Your task to perform on an android device: Search for seafood restaurants on Google Maps Image 0: 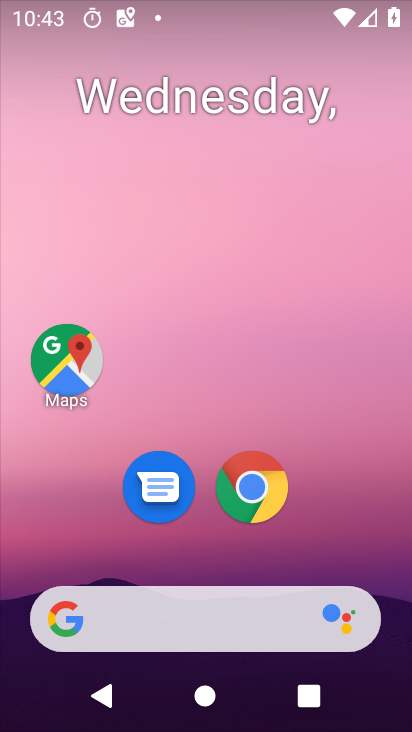
Step 0: drag from (230, 555) to (328, 109)
Your task to perform on an android device: Search for seafood restaurants on Google Maps Image 1: 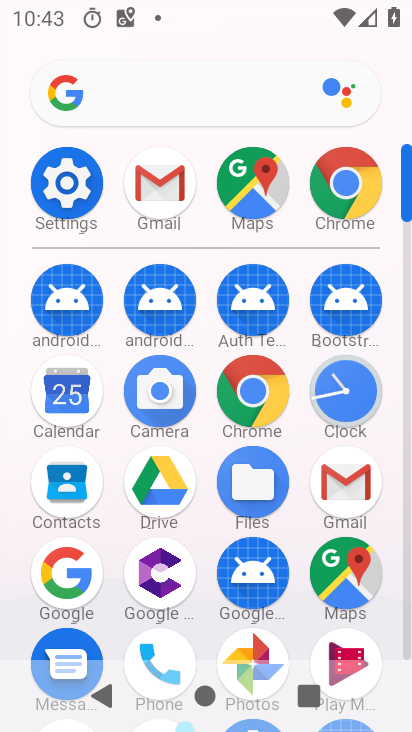
Step 1: click (330, 596)
Your task to perform on an android device: Search for seafood restaurants on Google Maps Image 2: 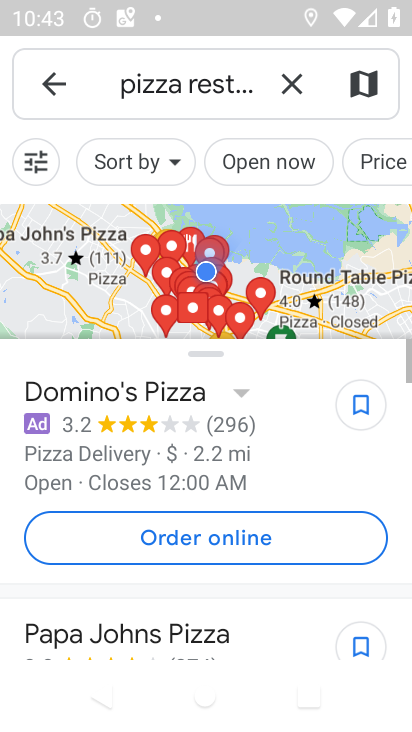
Step 2: press back button
Your task to perform on an android device: Search for seafood restaurants on Google Maps Image 3: 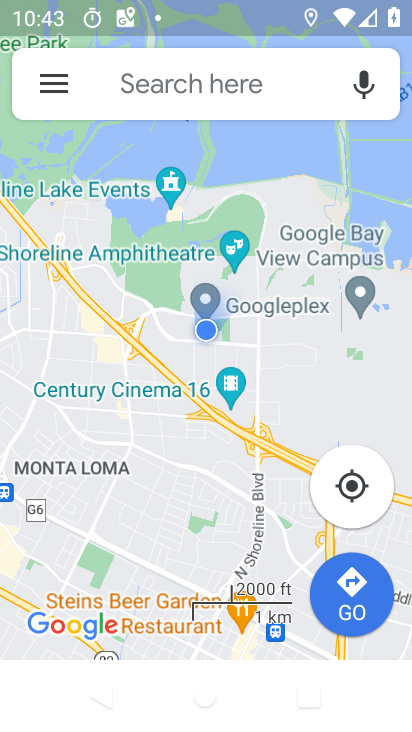
Step 3: click (224, 84)
Your task to perform on an android device: Search for seafood restaurants on Google Maps Image 4: 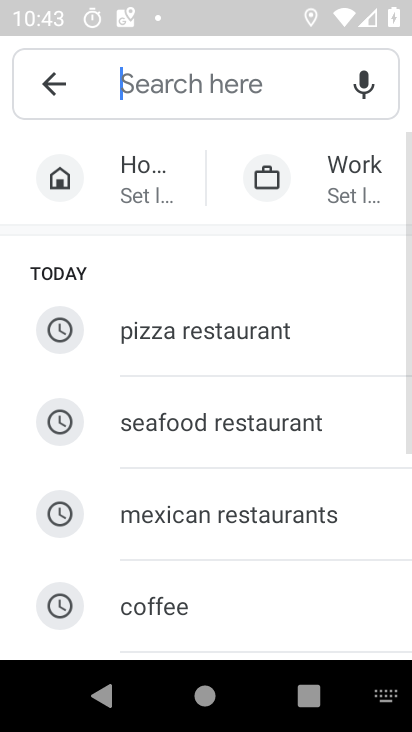
Step 4: click (270, 429)
Your task to perform on an android device: Search for seafood restaurants on Google Maps Image 5: 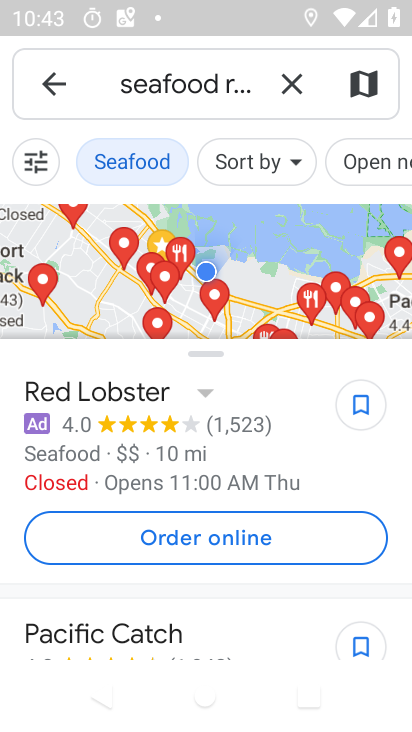
Step 5: task complete